Your task to perform on an android device: What's the weather going to be this weekend? Image 0: 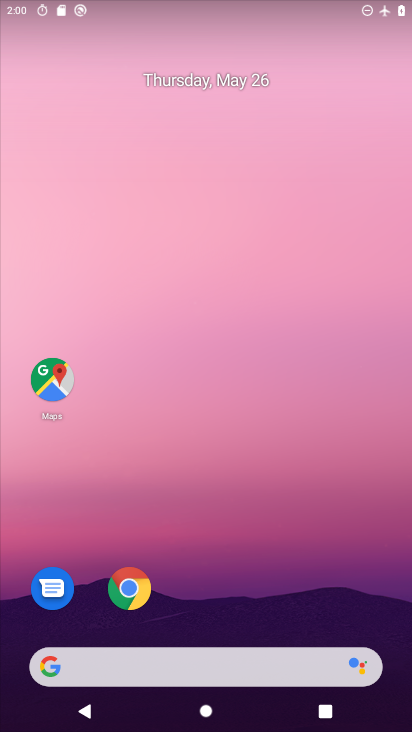
Step 0: drag from (405, 673) to (378, 282)
Your task to perform on an android device: What's the weather going to be this weekend? Image 1: 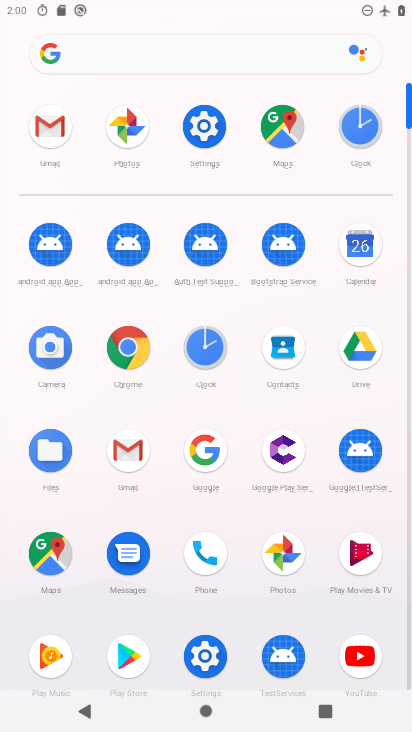
Step 1: click (366, 250)
Your task to perform on an android device: What's the weather going to be this weekend? Image 2: 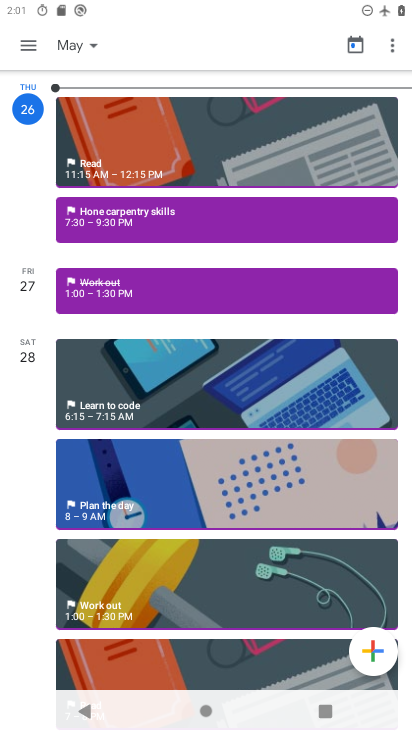
Step 2: press home button
Your task to perform on an android device: What's the weather going to be this weekend? Image 3: 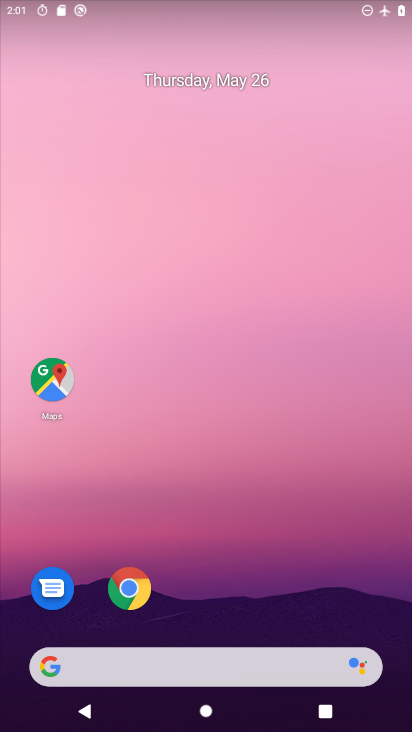
Step 3: drag from (15, 259) to (395, 275)
Your task to perform on an android device: What's the weather going to be this weekend? Image 4: 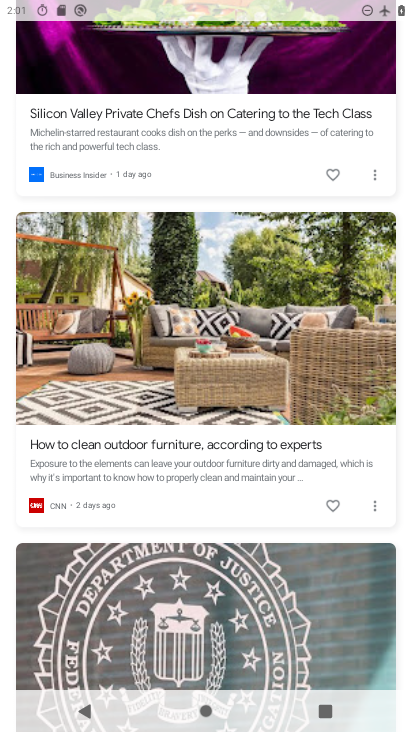
Step 4: drag from (212, 86) to (204, 654)
Your task to perform on an android device: What's the weather going to be this weekend? Image 5: 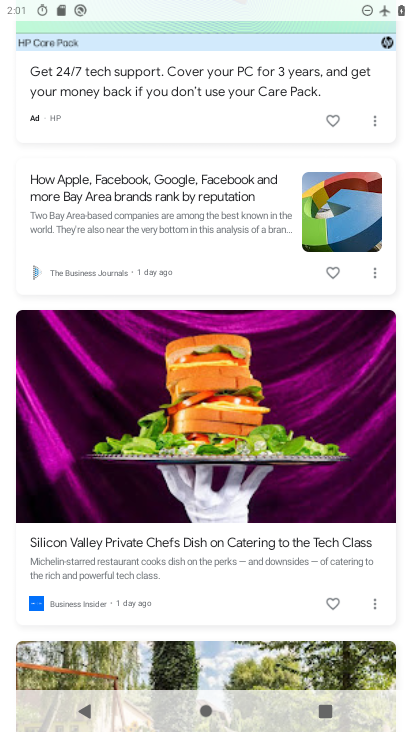
Step 5: drag from (205, 165) to (233, 577)
Your task to perform on an android device: What's the weather going to be this weekend? Image 6: 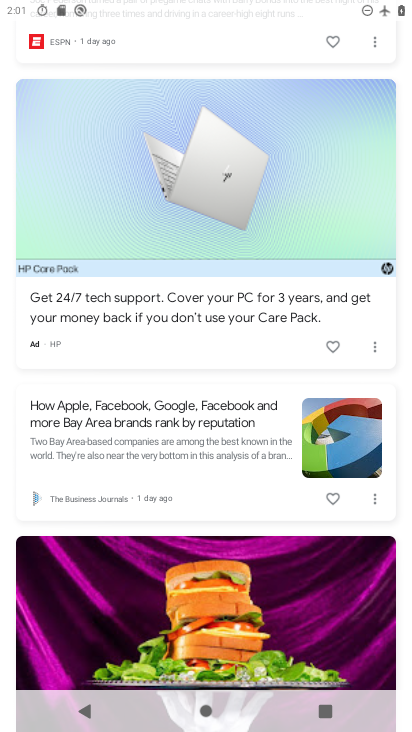
Step 6: drag from (188, 203) to (223, 584)
Your task to perform on an android device: What's the weather going to be this weekend? Image 7: 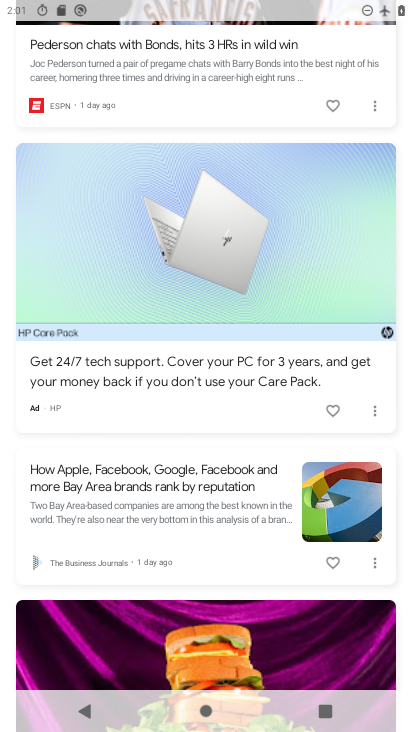
Step 7: drag from (224, 166) to (253, 527)
Your task to perform on an android device: What's the weather going to be this weekend? Image 8: 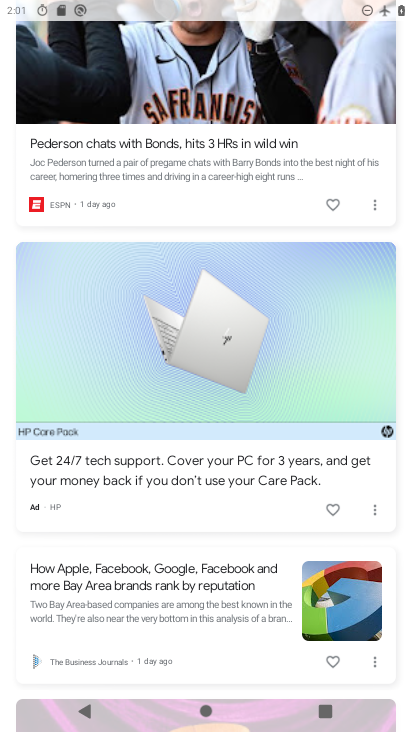
Step 8: drag from (246, 97) to (283, 508)
Your task to perform on an android device: What's the weather going to be this weekend? Image 9: 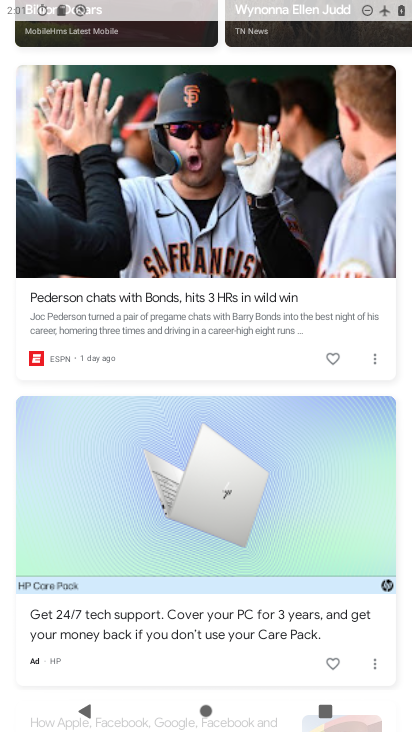
Step 9: drag from (230, 155) to (273, 576)
Your task to perform on an android device: What's the weather going to be this weekend? Image 10: 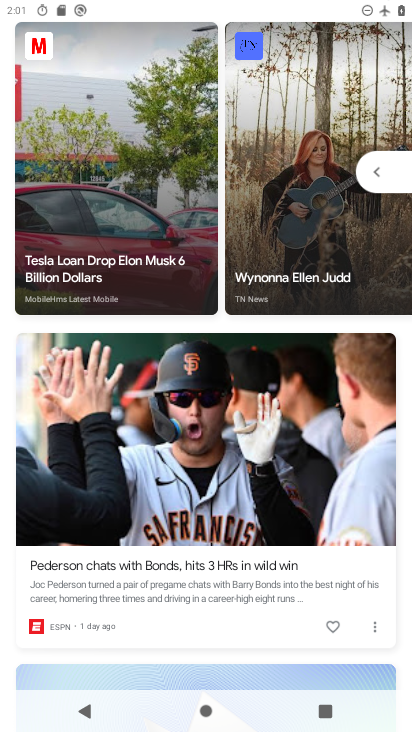
Step 10: drag from (275, 204) to (287, 577)
Your task to perform on an android device: What's the weather going to be this weekend? Image 11: 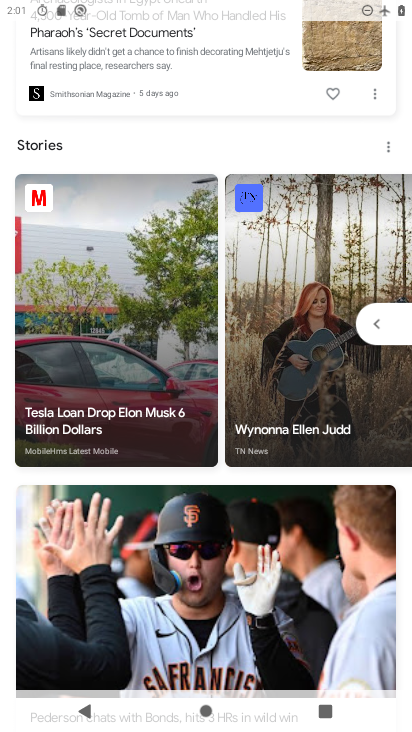
Step 11: drag from (236, 234) to (264, 634)
Your task to perform on an android device: What's the weather going to be this weekend? Image 12: 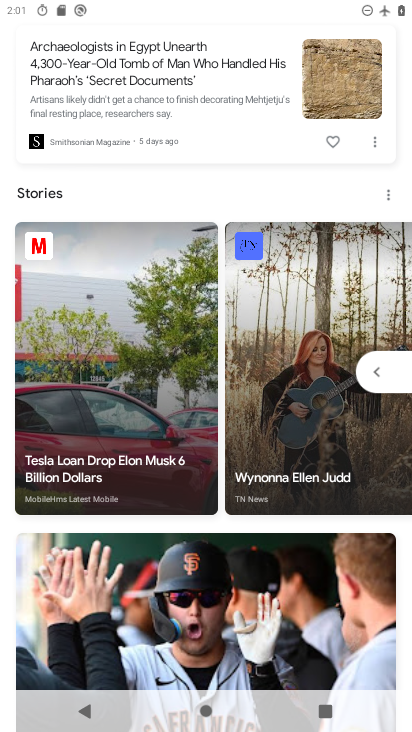
Step 12: drag from (208, 88) to (222, 616)
Your task to perform on an android device: What's the weather going to be this weekend? Image 13: 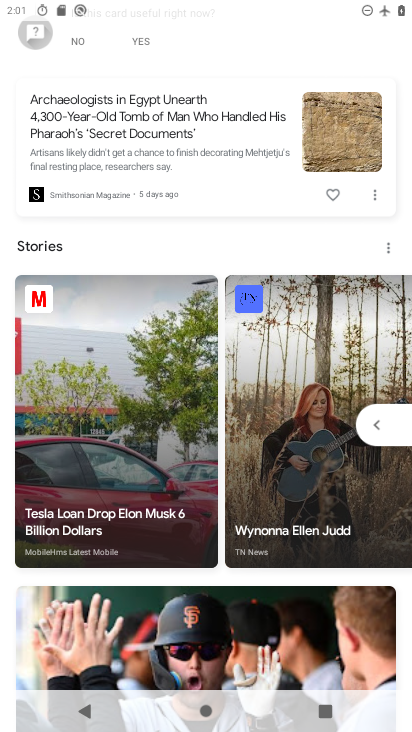
Step 13: drag from (159, 112) to (150, 553)
Your task to perform on an android device: What's the weather going to be this weekend? Image 14: 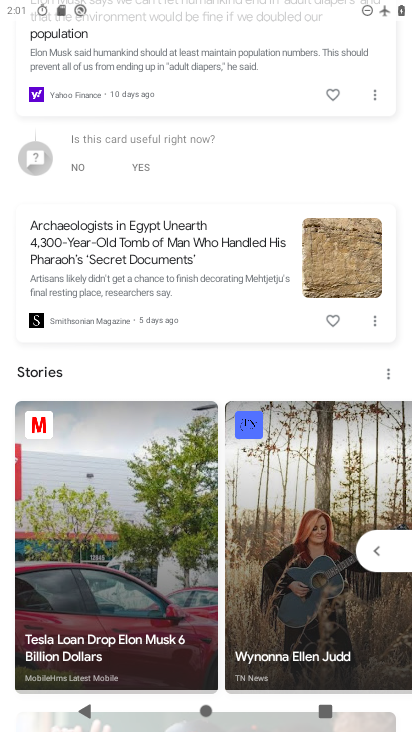
Step 14: drag from (207, 133) to (203, 433)
Your task to perform on an android device: What's the weather going to be this weekend? Image 15: 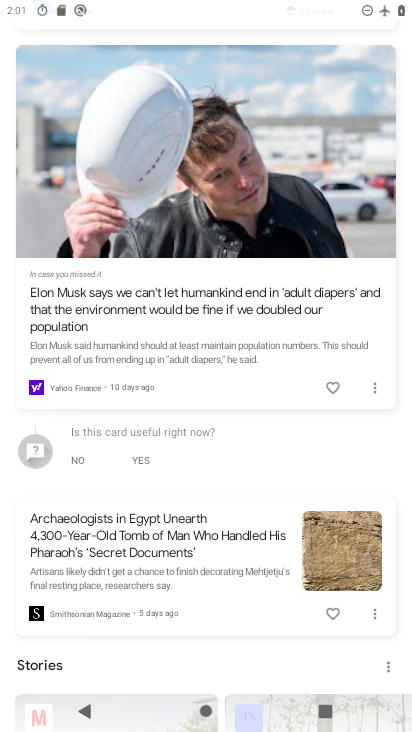
Step 15: drag from (233, 138) to (261, 534)
Your task to perform on an android device: What's the weather going to be this weekend? Image 16: 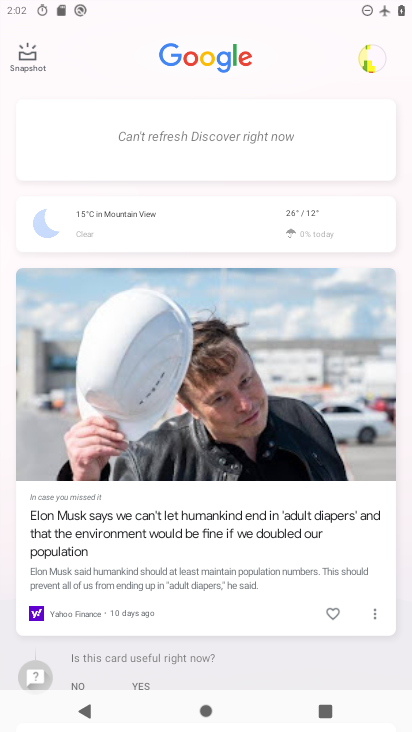
Step 16: click (297, 210)
Your task to perform on an android device: What's the weather going to be this weekend? Image 17: 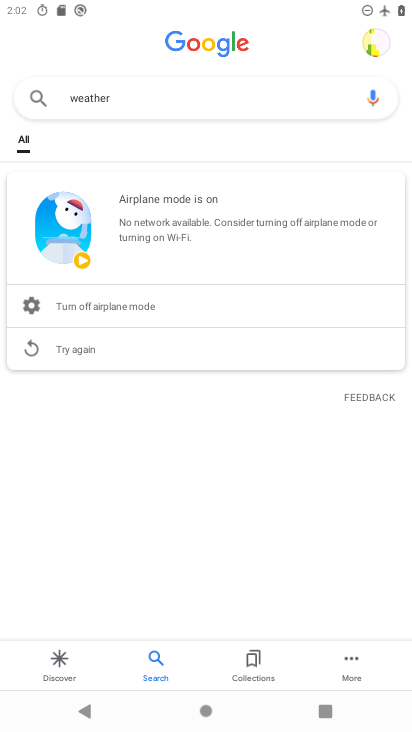
Step 17: task complete